Your task to perform on an android device: Open settings Image 0: 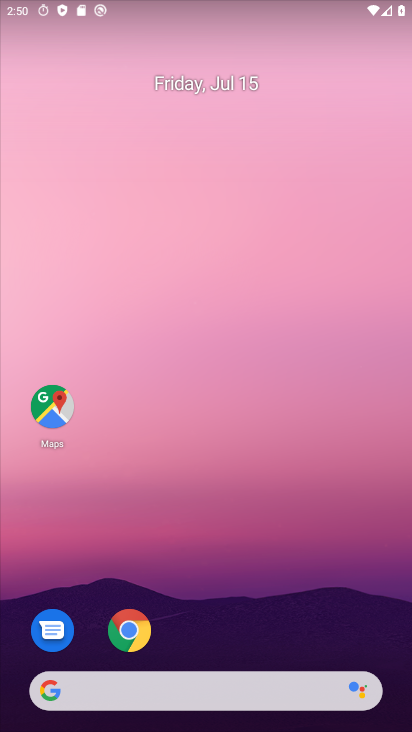
Step 0: drag from (280, 584) to (283, 133)
Your task to perform on an android device: Open settings Image 1: 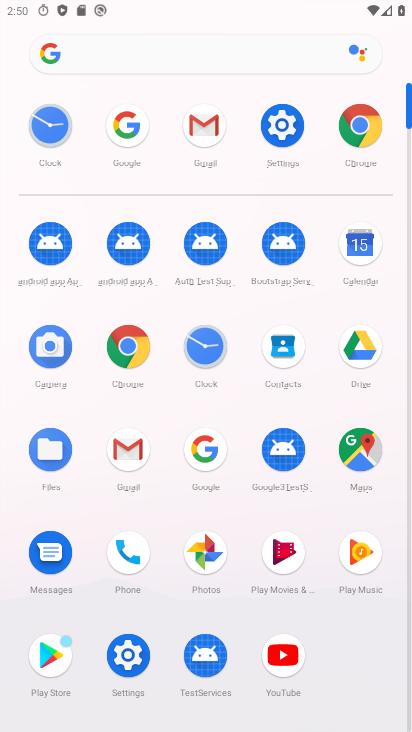
Step 1: click (127, 653)
Your task to perform on an android device: Open settings Image 2: 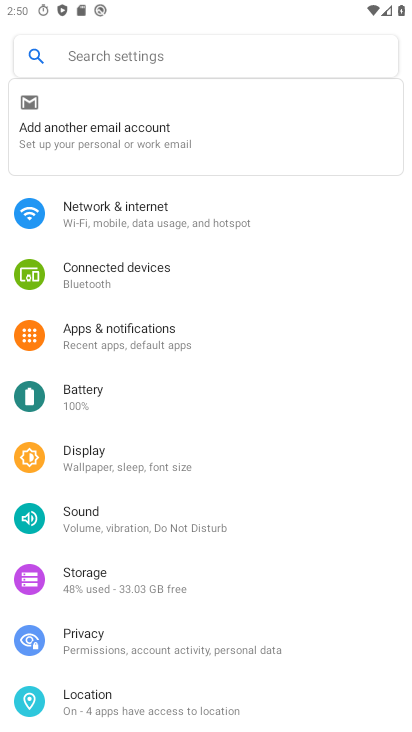
Step 2: task complete